Your task to perform on an android device: Open Youtube and go to the subscriptions tab Image 0: 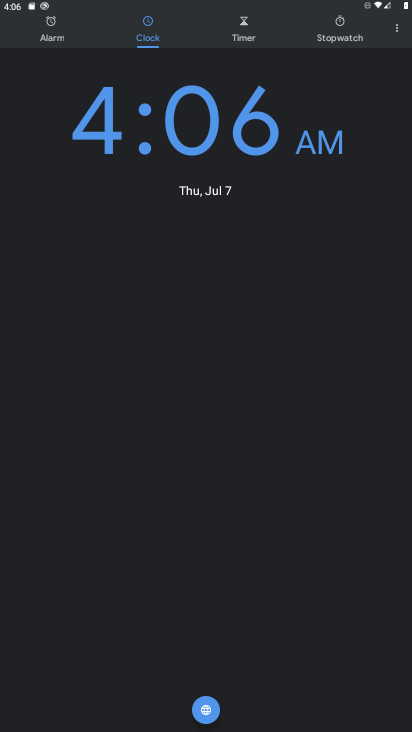
Step 0: press home button
Your task to perform on an android device: Open Youtube and go to the subscriptions tab Image 1: 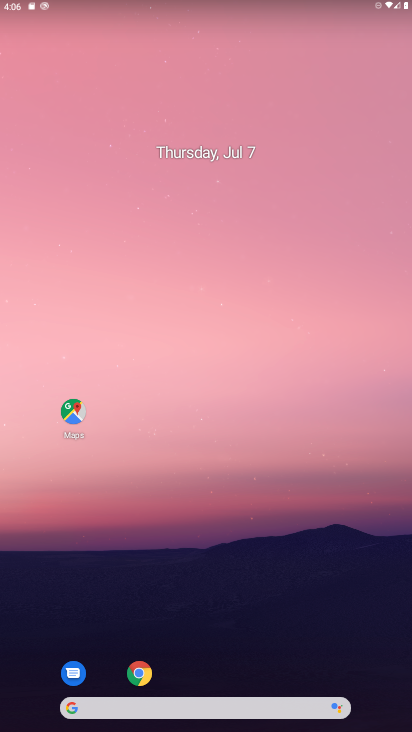
Step 1: drag from (195, 687) to (158, 62)
Your task to perform on an android device: Open Youtube and go to the subscriptions tab Image 2: 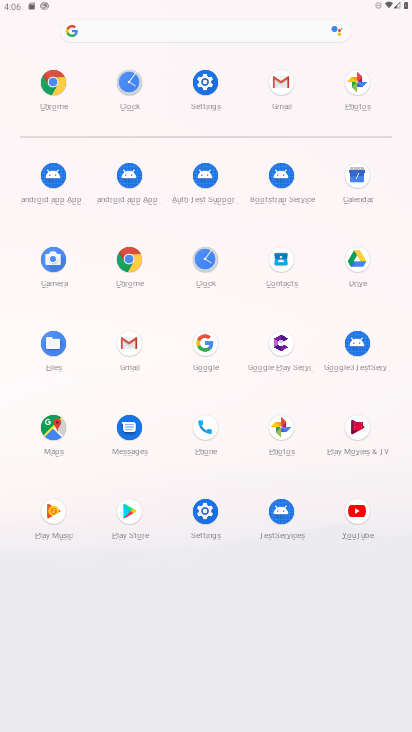
Step 2: click (356, 509)
Your task to perform on an android device: Open Youtube and go to the subscriptions tab Image 3: 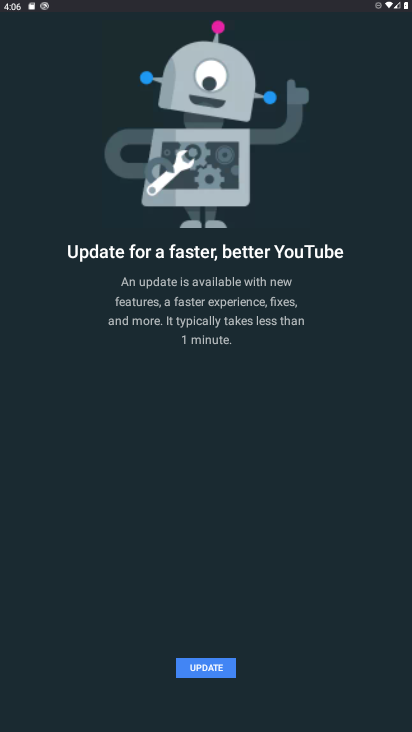
Step 3: click (207, 662)
Your task to perform on an android device: Open Youtube and go to the subscriptions tab Image 4: 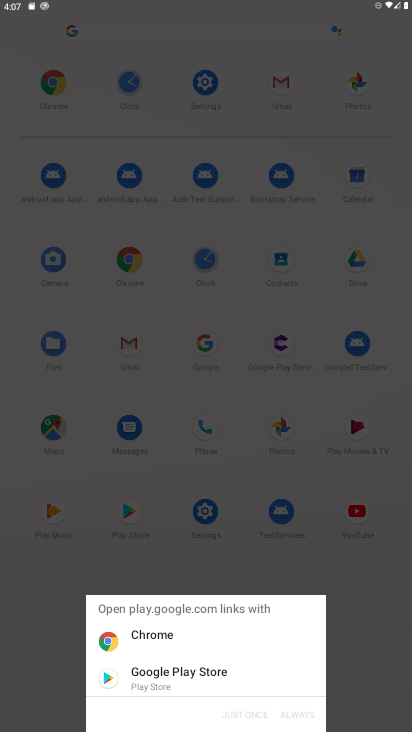
Step 4: click (154, 674)
Your task to perform on an android device: Open Youtube and go to the subscriptions tab Image 5: 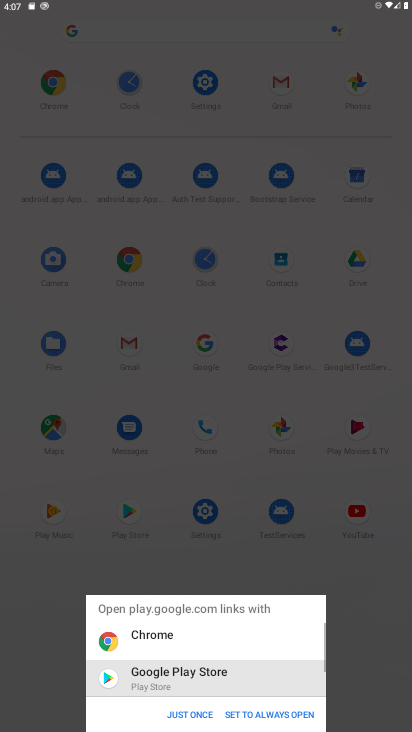
Step 5: click (184, 711)
Your task to perform on an android device: Open Youtube and go to the subscriptions tab Image 6: 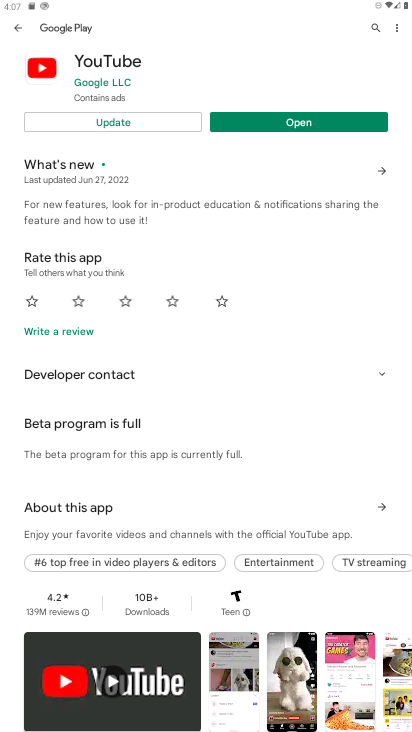
Step 6: click (116, 123)
Your task to perform on an android device: Open Youtube and go to the subscriptions tab Image 7: 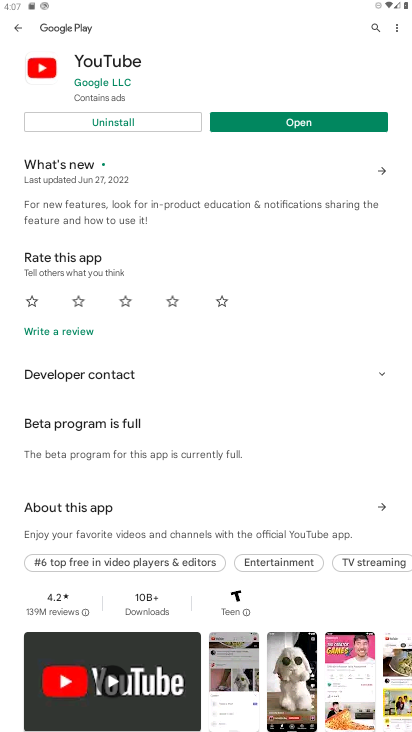
Step 7: click (306, 121)
Your task to perform on an android device: Open Youtube and go to the subscriptions tab Image 8: 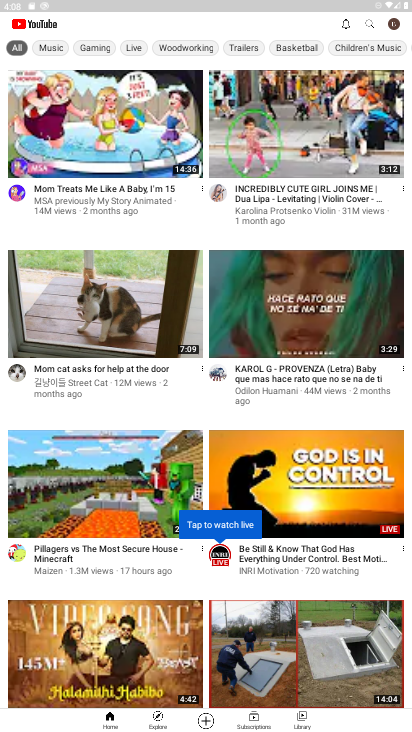
Step 8: click (250, 714)
Your task to perform on an android device: Open Youtube and go to the subscriptions tab Image 9: 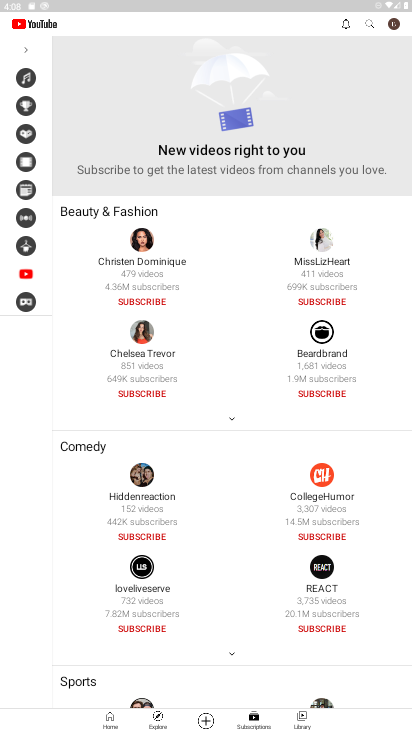
Step 9: task complete